Your task to perform on an android device: When is my next meeting? Image 0: 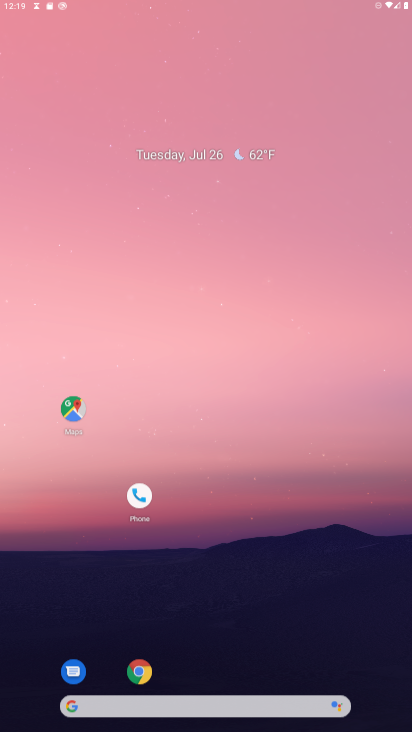
Step 0: press home button
Your task to perform on an android device: When is my next meeting? Image 1: 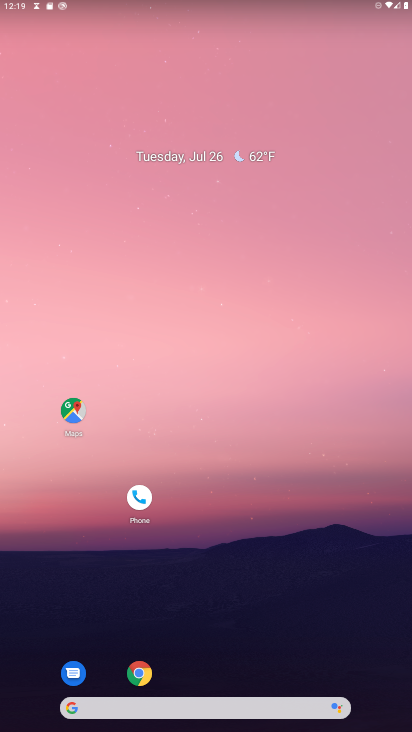
Step 1: drag from (239, 614) to (263, 69)
Your task to perform on an android device: When is my next meeting? Image 2: 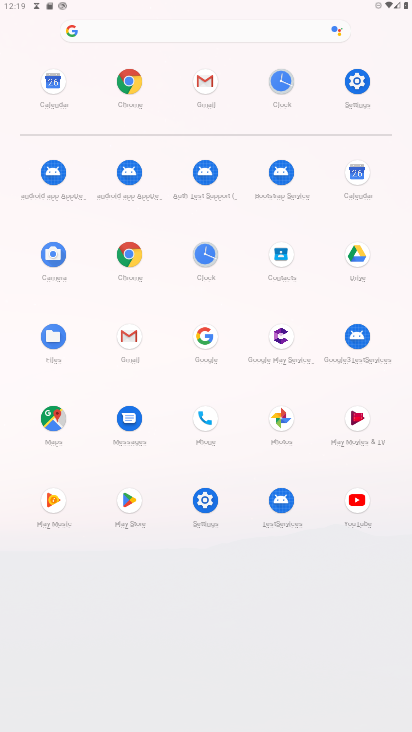
Step 2: click (359, 169)
Your task to perform on an android device: When is my next meeting? Image 3: 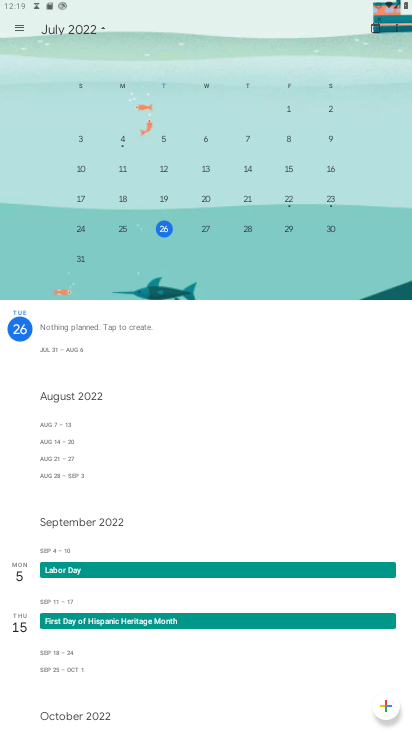
Step 3: click (10, 31)
Your task to perform on an android device: When is my next meeting? Image 4: 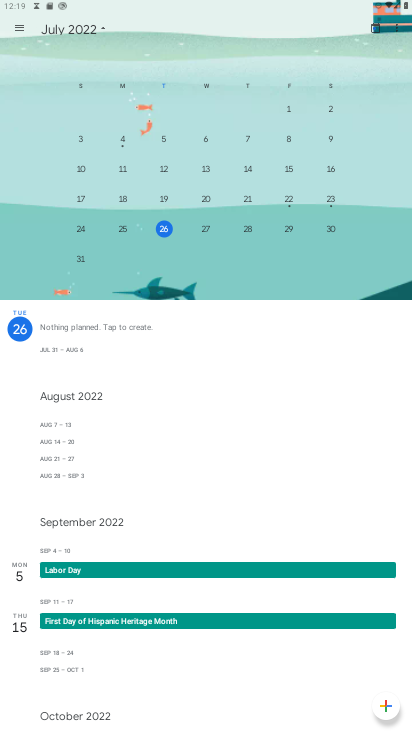
Step 4: click (23, 26)
Your task to perform on an android device: When is my next meeting? Image 5: 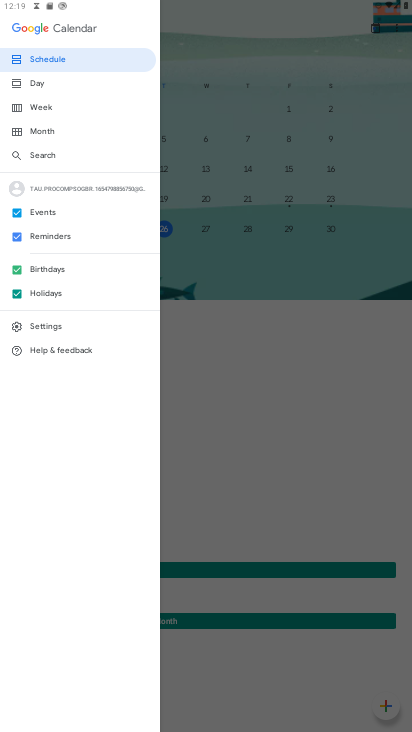
Step 5: click (76, 59)
Your task to perform on an android device: When is my next meeting? Image 6: 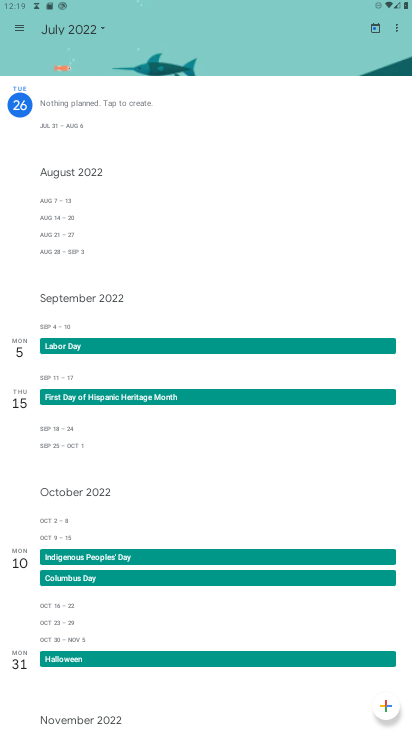
Step 6: task complete